Your task to perform on an android device: Search for Italian restaurants on Maps Image 0: 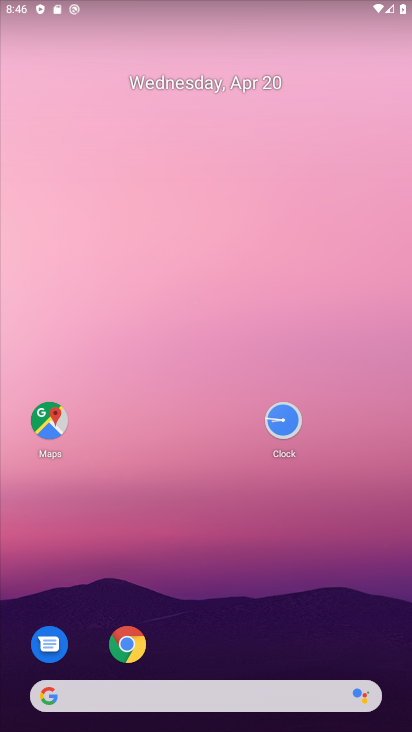
Step 0: drag from (302, 689) to (340, 102)
Your task to perform on an android device: Search for Italian restaurants on Maps Image 1: 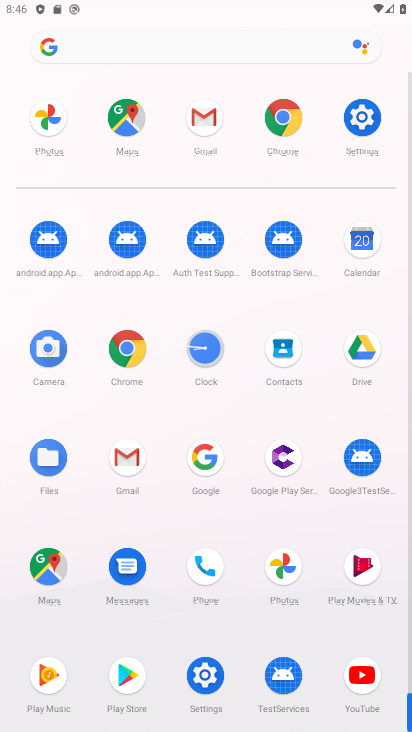
Step 1: click (44, 578)
Your task to perform on an android device: Search for Italian restaurants on Maps Image 2: 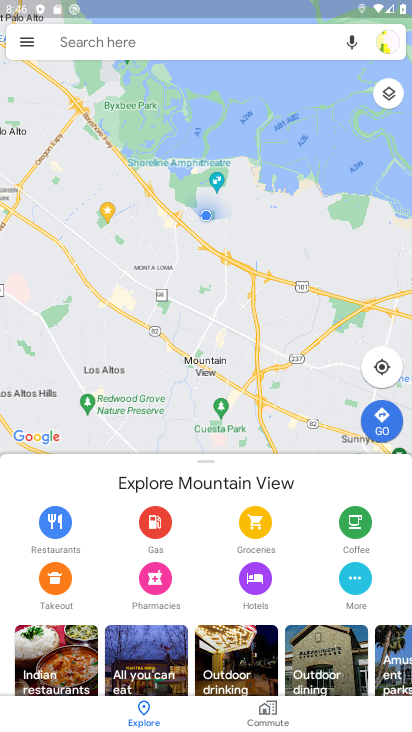
Step 2: click (233, 41)
Your task to perform on an android device: Search for Italian restaurants on Maps Image 3: 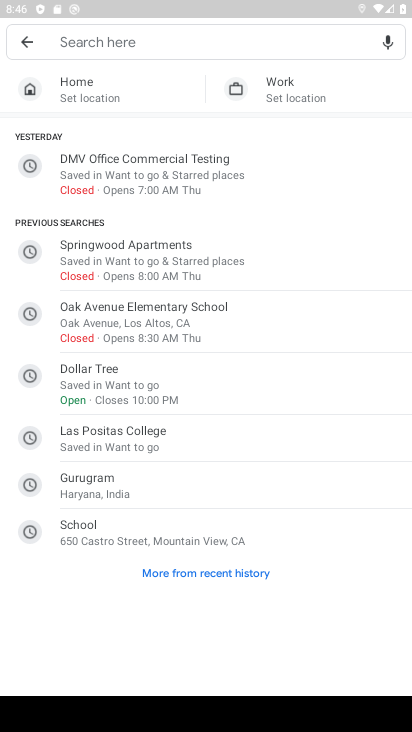
Step 3: click (233, 41)
Your task to perform on an android device: Search for Italian restaurants on Maps Image 4: 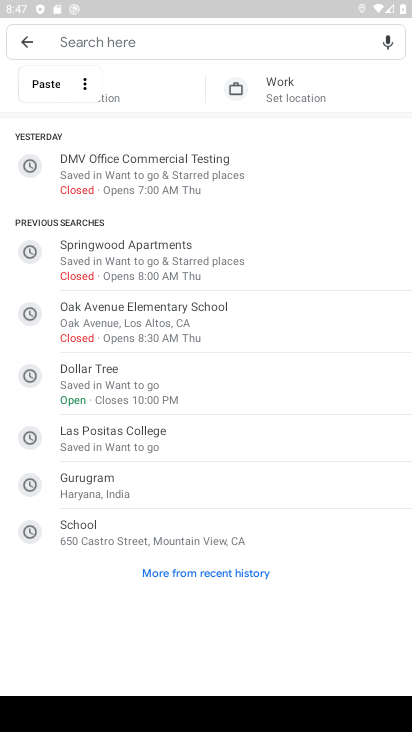
Step 4: type "italian rstau"
Your task to perform on an android device: Search for Italian restaurants on Maps Image 5: 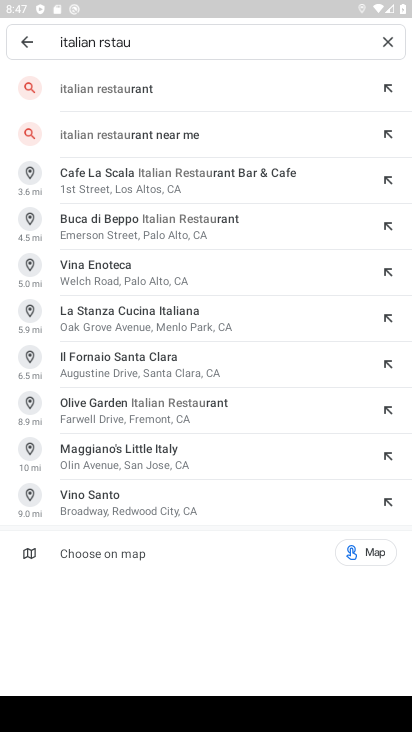
Step 5: click (144, 90)
Your task to perform on an android device: Search for Italian restaurants on Maps Image 6: 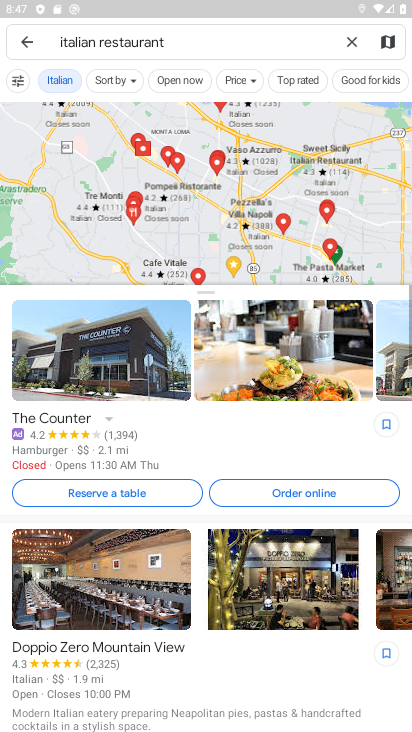
Step 6: task complete